Your task to perform on an android device: Open Youtube and go to "Your channel" Image 0: 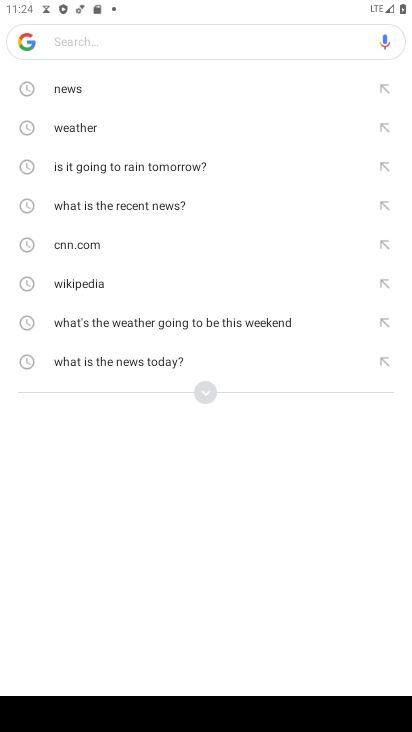
Step 0: press home button
Your task to perform on an android device: Open Youtube and go to "Your channel" Image 1: 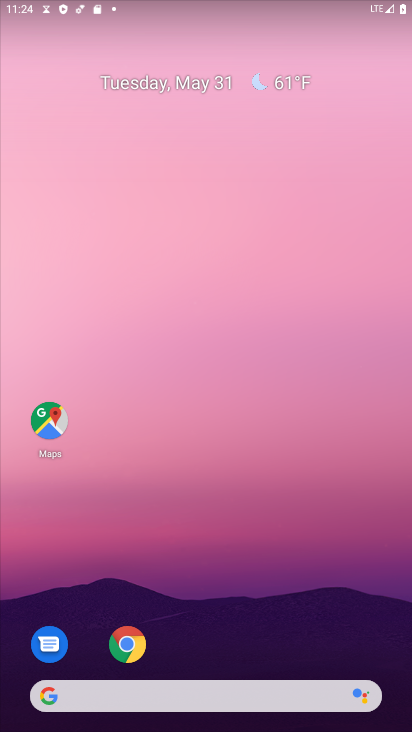
Step 1: drag from (229, 621) to (345, 81)
Your task to perform on an android device: Open Youtube and go to "Your channel" Image 2: 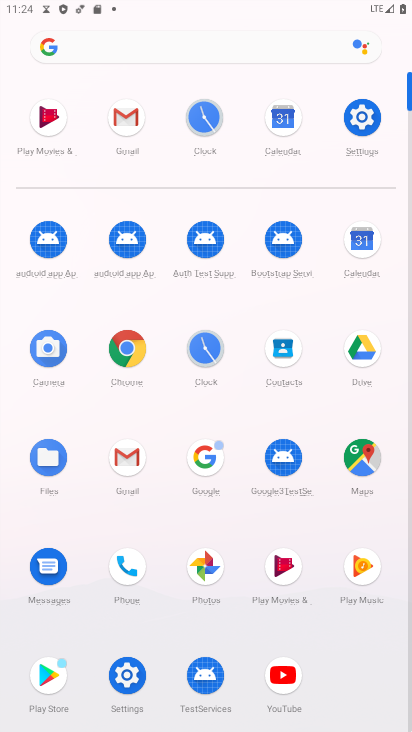
Step 2: click (277, 686)
Your task to perform on an android device: Open Youtube and go to "Your channel" Image 3: 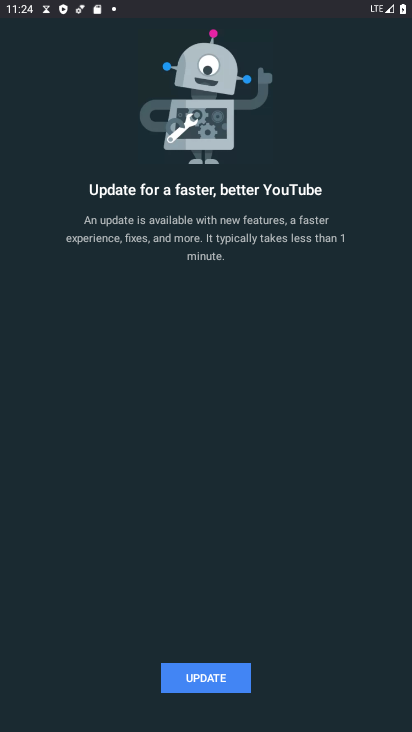
Step 3: click (204, 672)
Your task to perform on an android device: Open Youtube and go to "Your channel" Image 4: 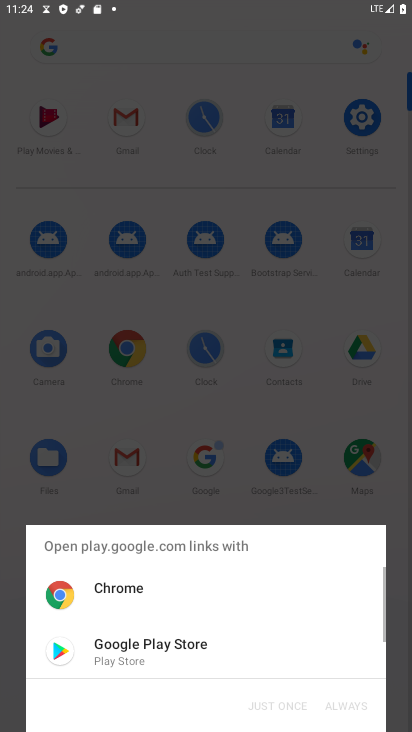
Step 4: click (161, 637)
Your task to perform on an android device: Open Youtube and go to "Your channel" Image 5: 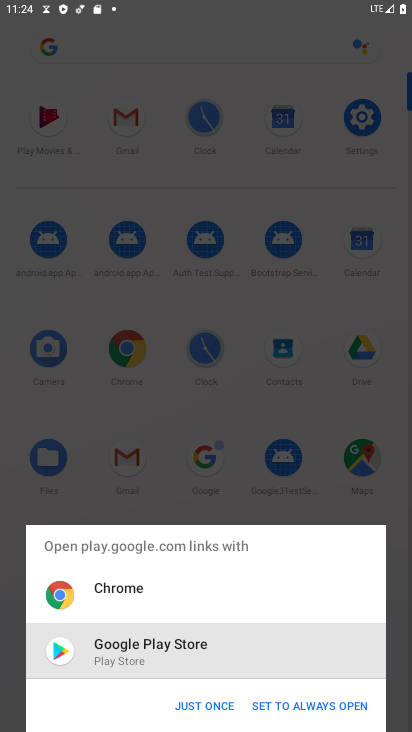
Step 5: click (208, 700)
Your task to perform on an android device: Open Youtube and go to "Your channel" Image 6: 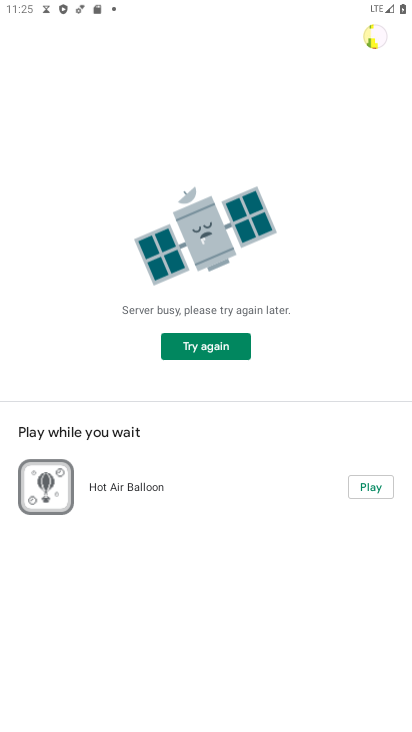
Step 6: click (183, 345)
Your task to perform on an android device: Open Youtube and go to "Your channel" Image 7: 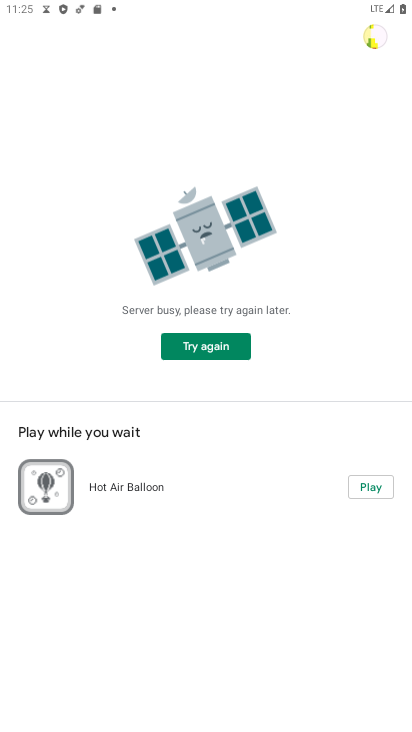
Step 7: task complete